Your task to perform on an android device: remove spam from my inbox in the gmail app Image 0: 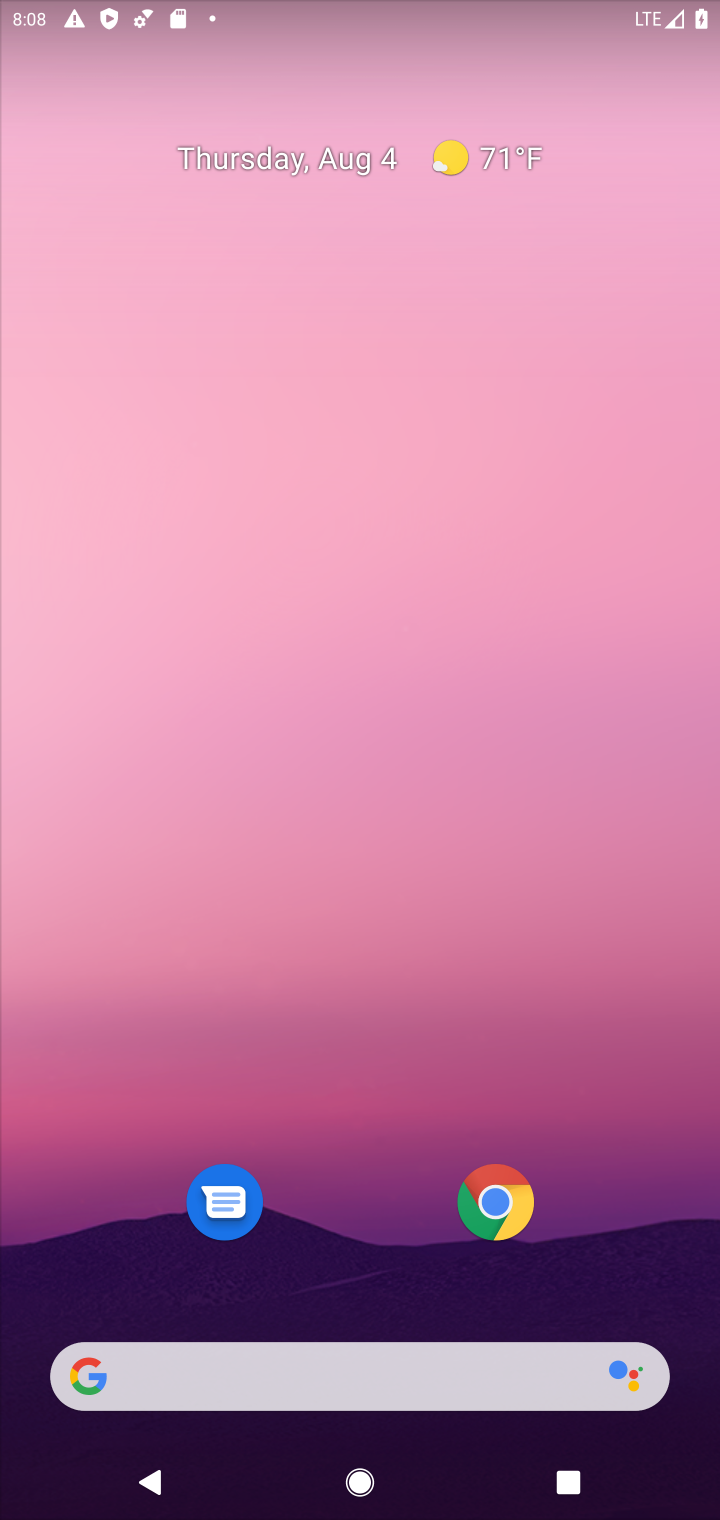
Step 0: drag from (350, 1259) to (345, 372)
Your task to perform on an android device: remove spam from my inbox in the gmail app Image 1: 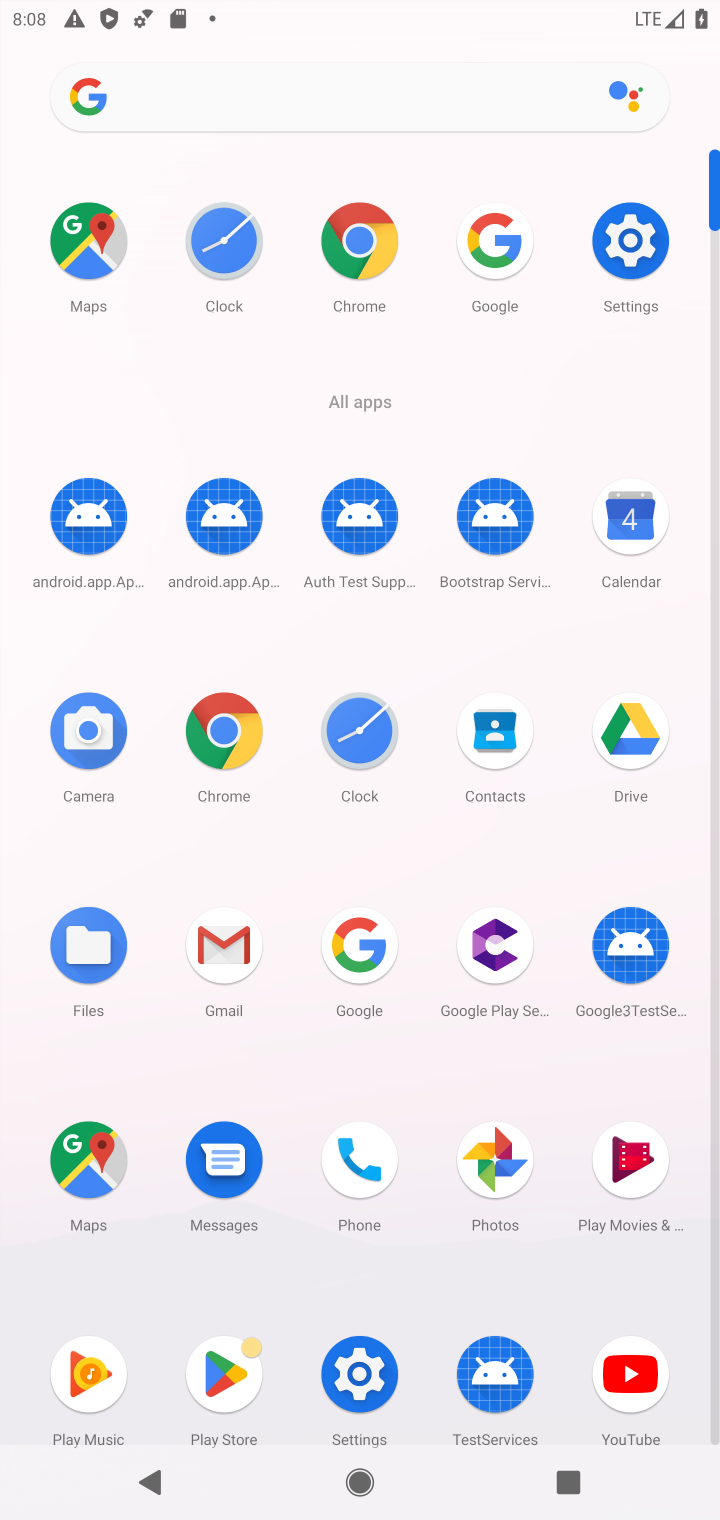
Step 1: click (240, 978)
Your task to perform on an android device: remove spam from my inbox in the gmail app Image 2: 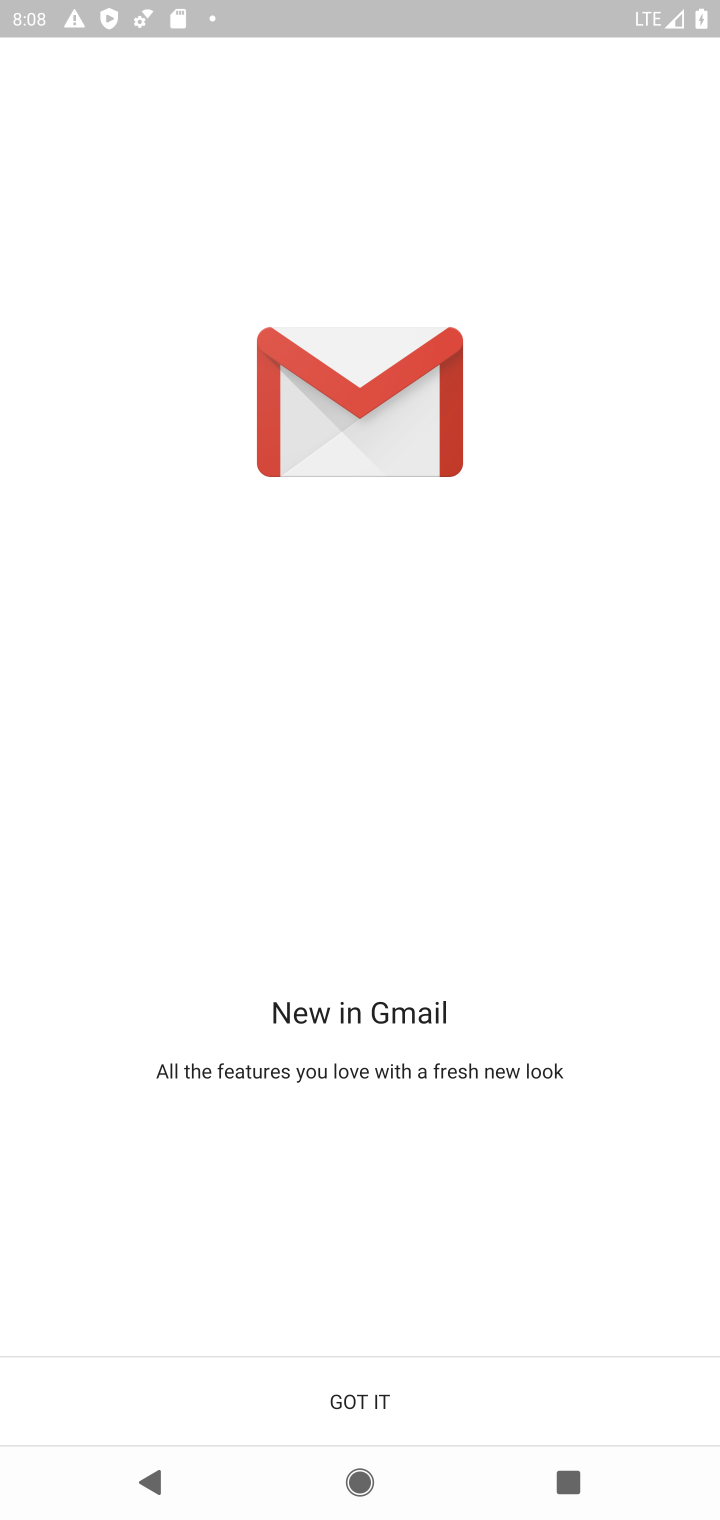
Step 2: click (378, 1413)
Your task to perform on an android device: remove spam from my inbox in the gmail app Image 3: 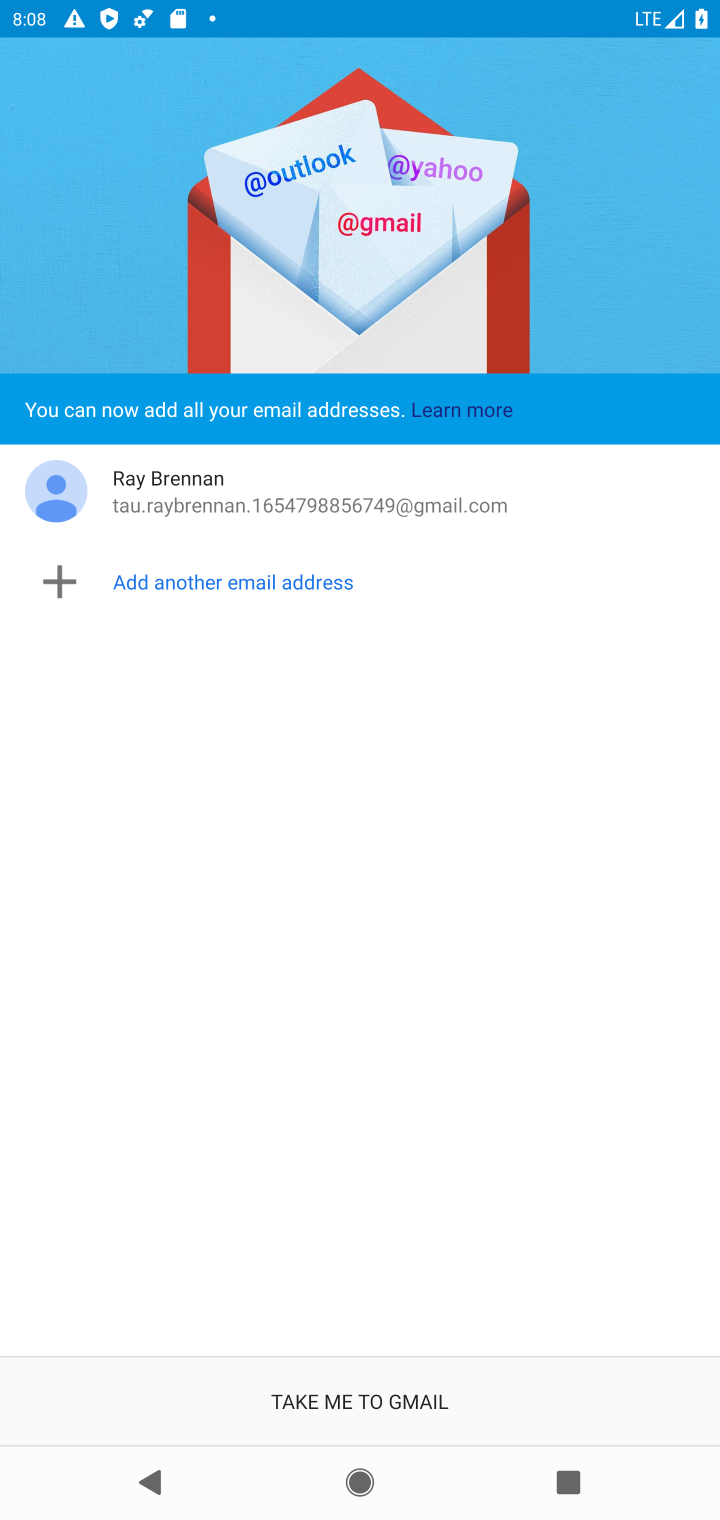
Step 3: click (434, 1410)
Your task to perform on an android device: remove spam from my inbox in the gmail app Image 4: 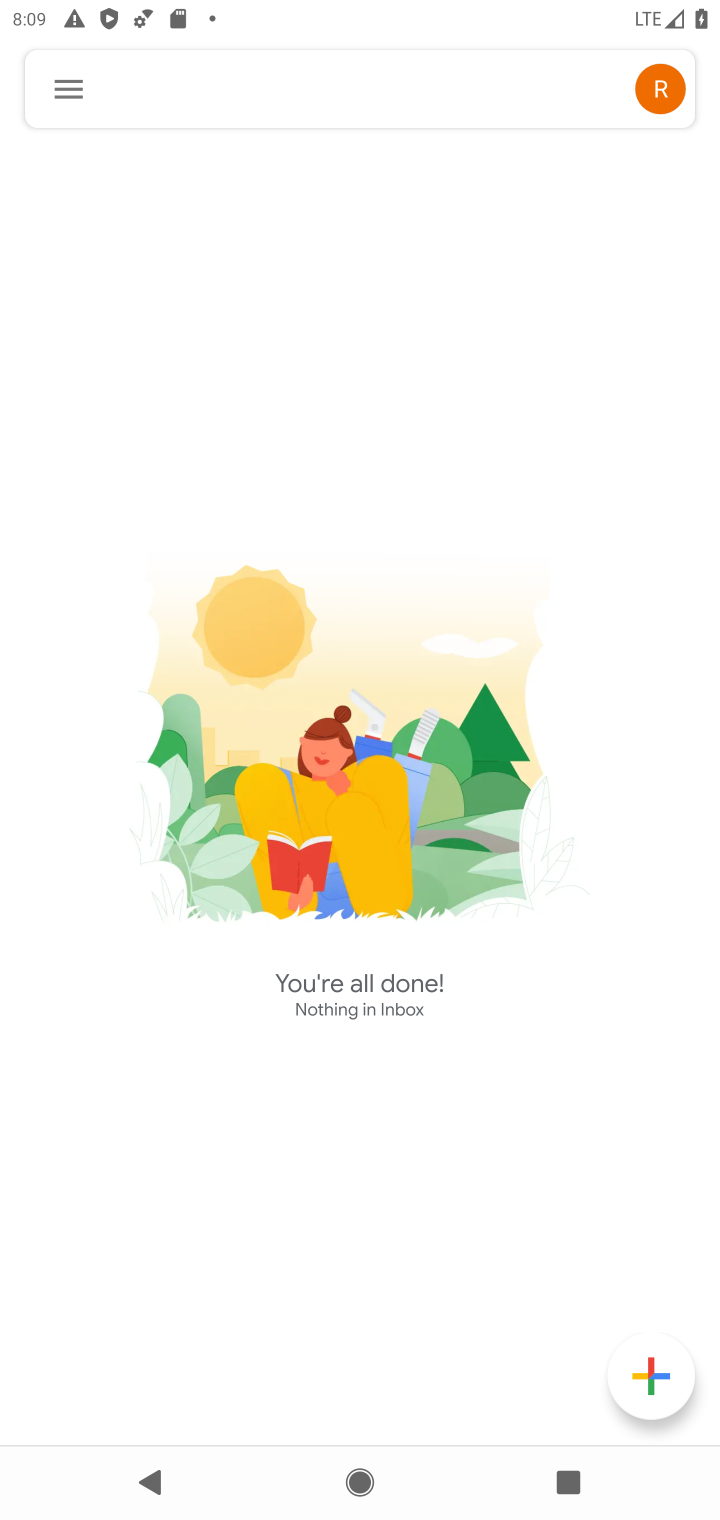
Step 4: click (69, 61)
Your task to perform on an android device: remove spam from my inbox in the gmail app Image 5: 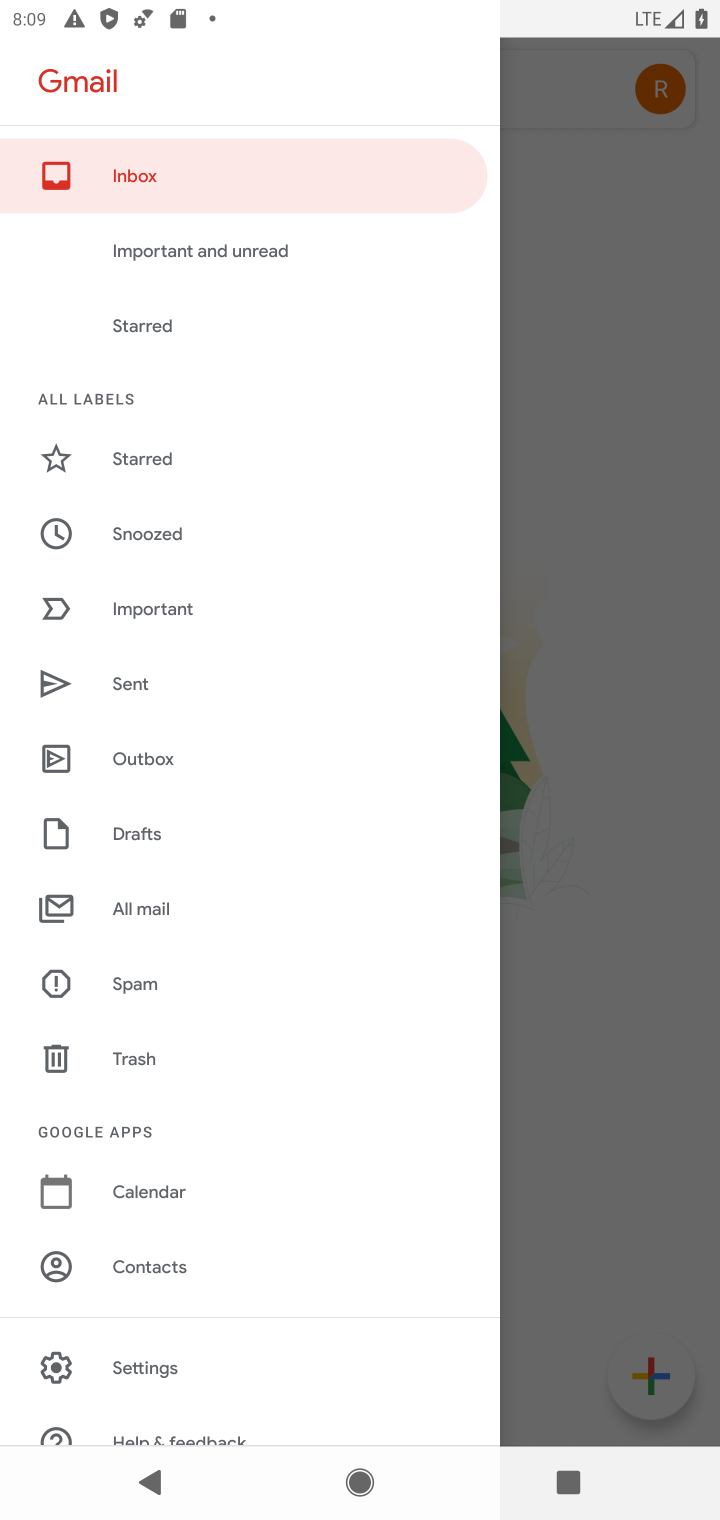
Step 5: click (194, 992)
Your task to perform on an android device: remove spam from my inbox in the gmail app Image 6: 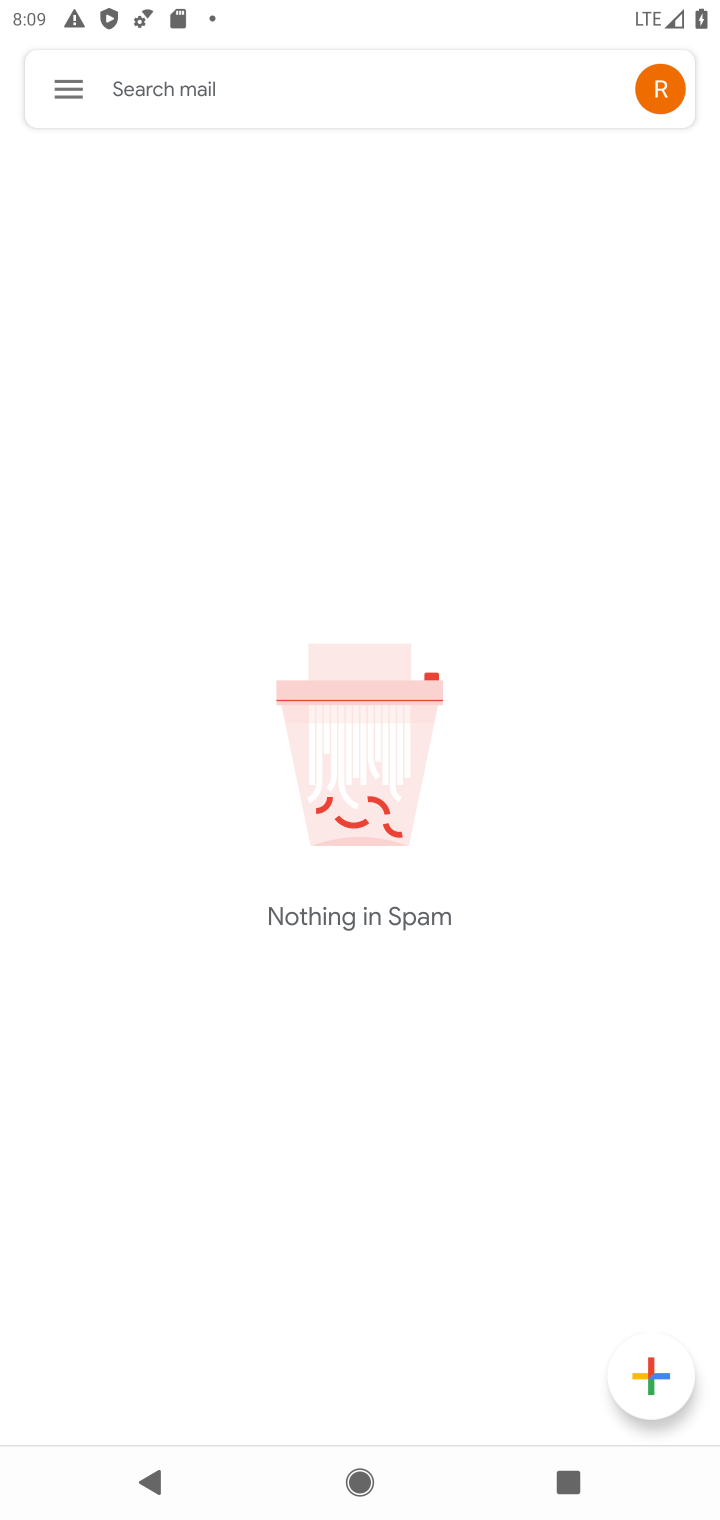
Step 6: task complete